Your task to perform on an android device: set the timer Image 0: 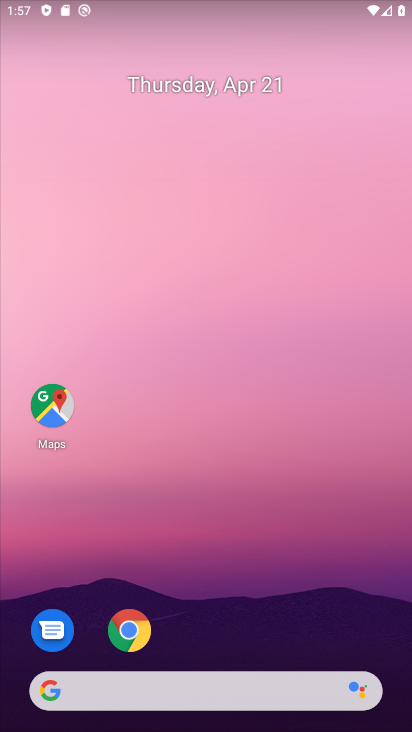
Step 0: drag from (348, 594) to (366, 16)
Your task to perform on an android device: set the timer Image 1: 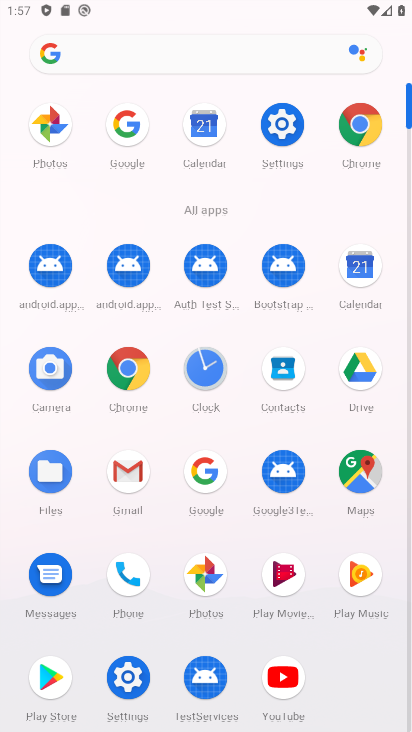
Step 1: click (203, 371)
Your task to perform on an android device: set the timer Image 2: 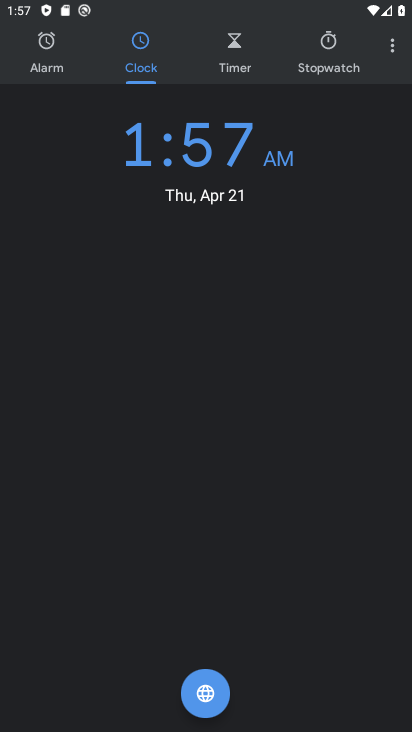
Step 2: click (230, 68)
Your task to perform on an android device: set the timer Image 3: 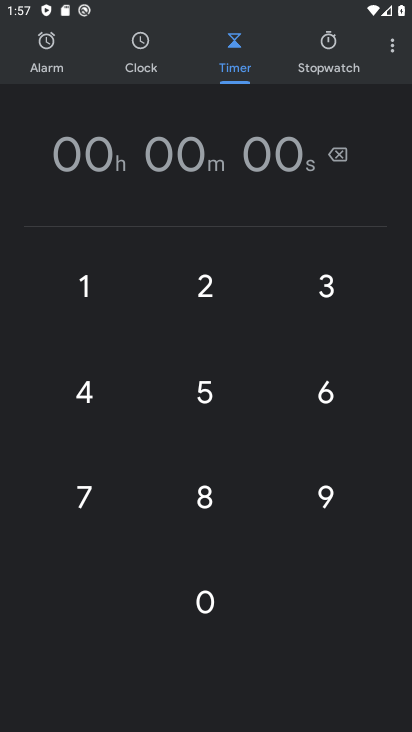
Step 3: click (194, 395)
Your task to perform on an android device: set the timer Image 4: 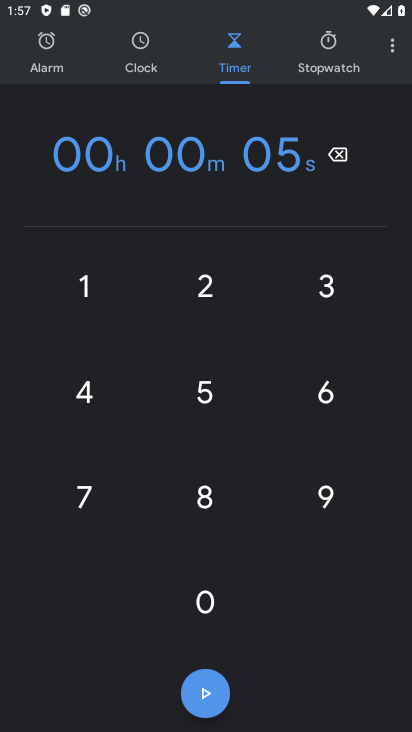
Step 4: click (207, 594)
Your task to perform on an android device: set the timer Image 5: 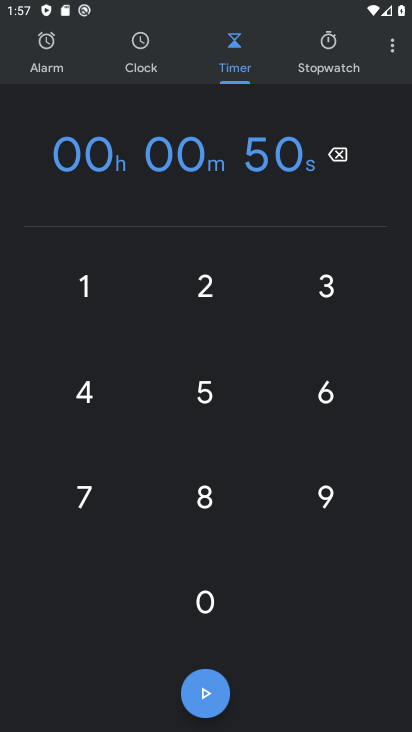
Step 5: click (202, 286)
Your task to perform on an android device: set the timer Image 6: 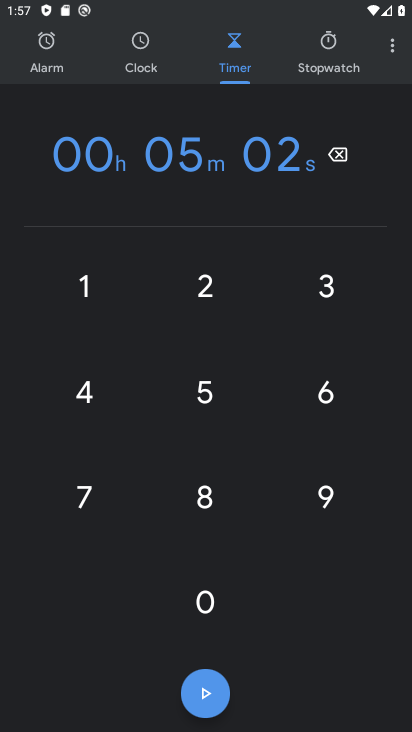
Step 6: click (200, 396)
Your task to perform on an android device: set the timer Image 7: 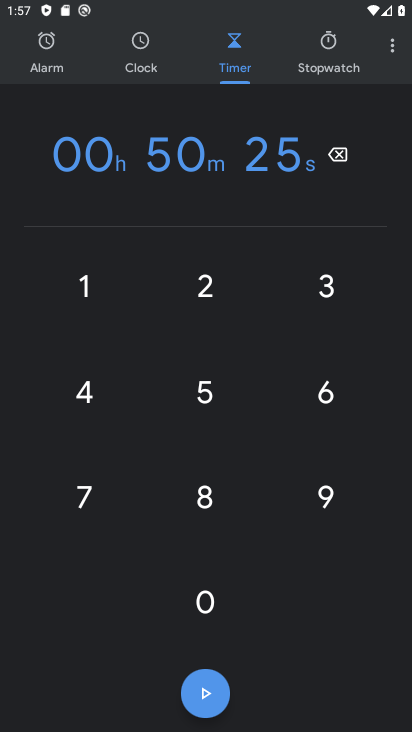
Step 7: click (216, 700)
Your task to perform on an android device: set the timer Image 8: 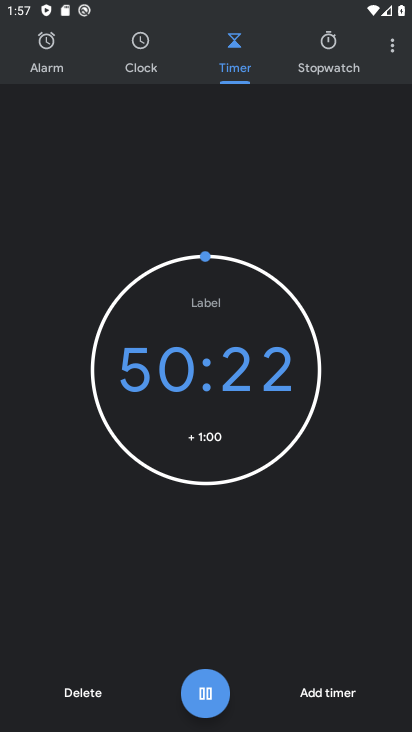
Step 8: task complete